Your task to perform on an android device: Show me recent news Image 0: 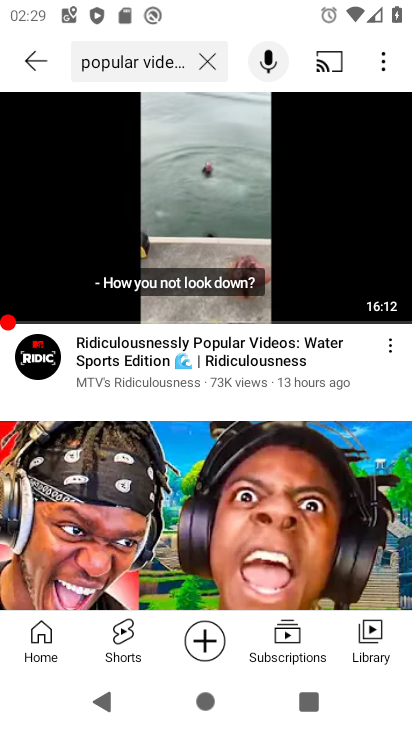
Step 0: press home button
Your task to perform on an android device: Show me recent news Image 1: 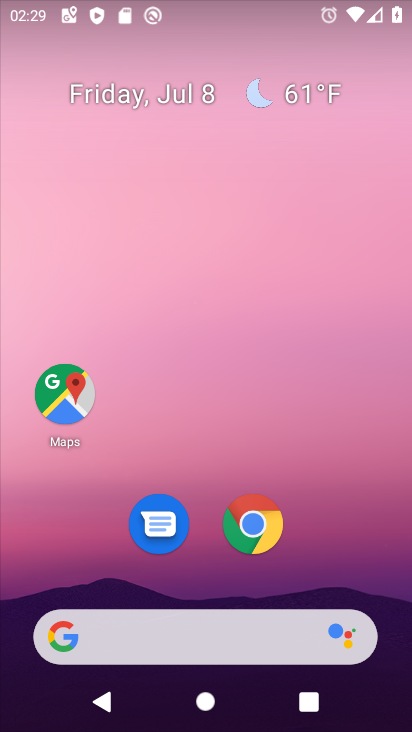
Step 1: click (206, 623)
Your task to perform on an android device: Show me recent news Image 2: 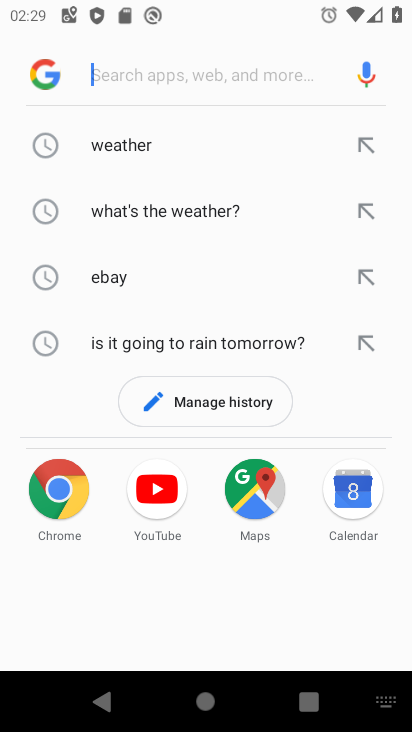
Step 2: type "recent news"
Your task to perform on an android device: Show me recent news Image 3: 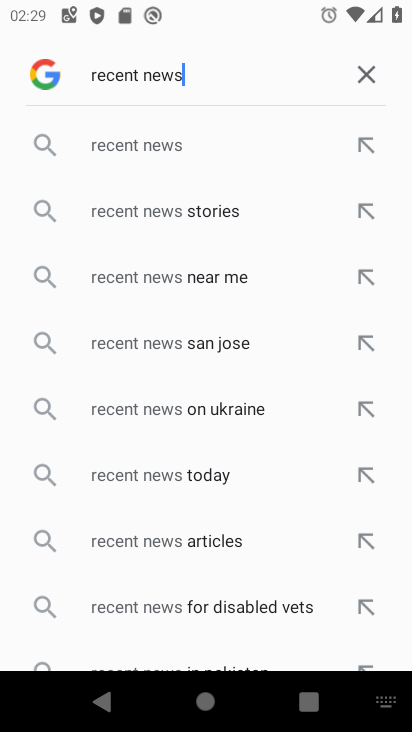
Step 3: click (175, 142)
Your task to perform on an android device: Show me recent news Image 4: 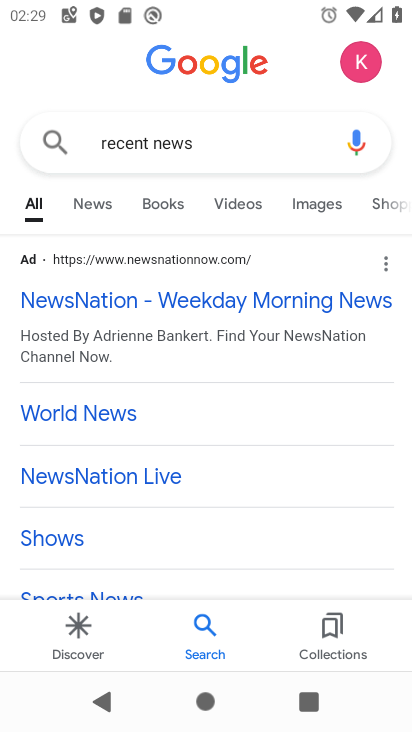
Step 4: click (97, 197)
Your task to perform on an android device: Show me recent news Image 5: 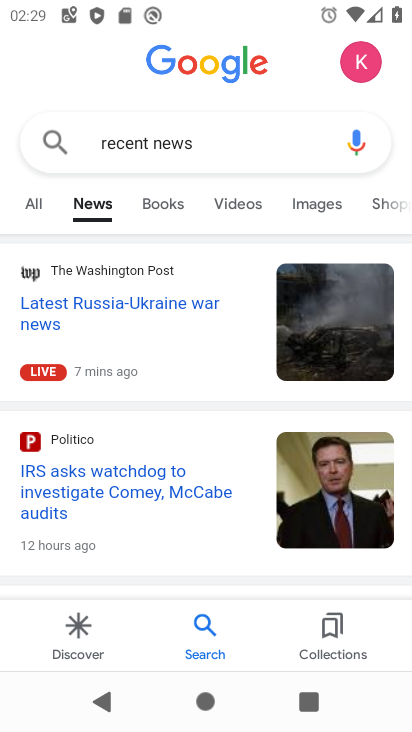
Step 5: click (115, 306)
Your task to perform on an android device: Show me recent news Image 6: 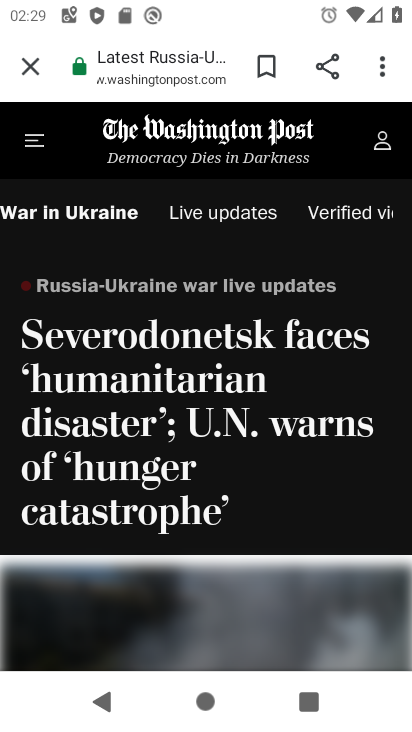
Step 6: task complete